Your task to perform on an android device: turn off location history Image 0: 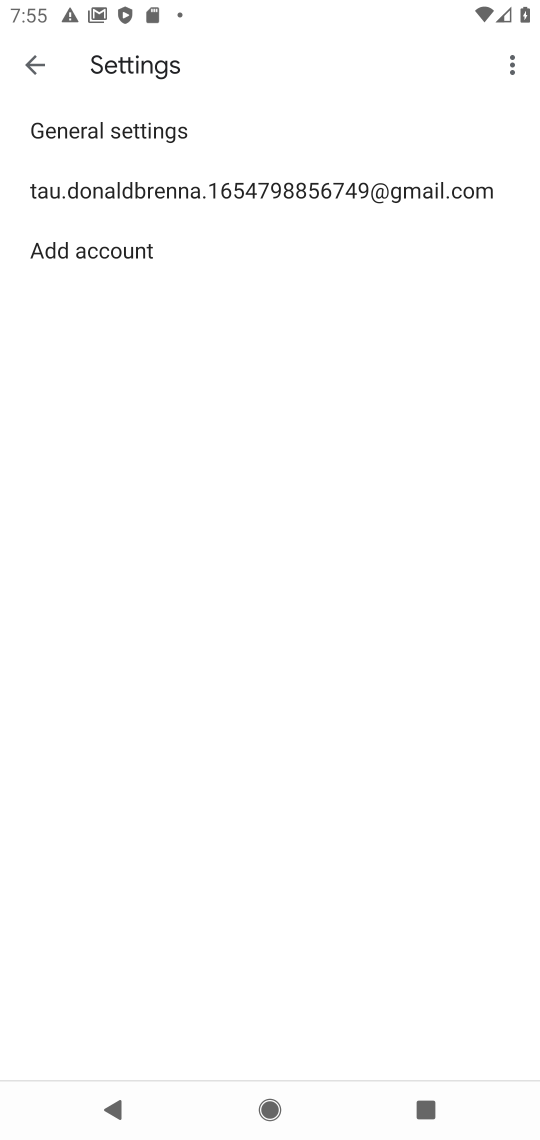
Step 0: press home button
Your task to perform on an android device: turn off location history Image 1: 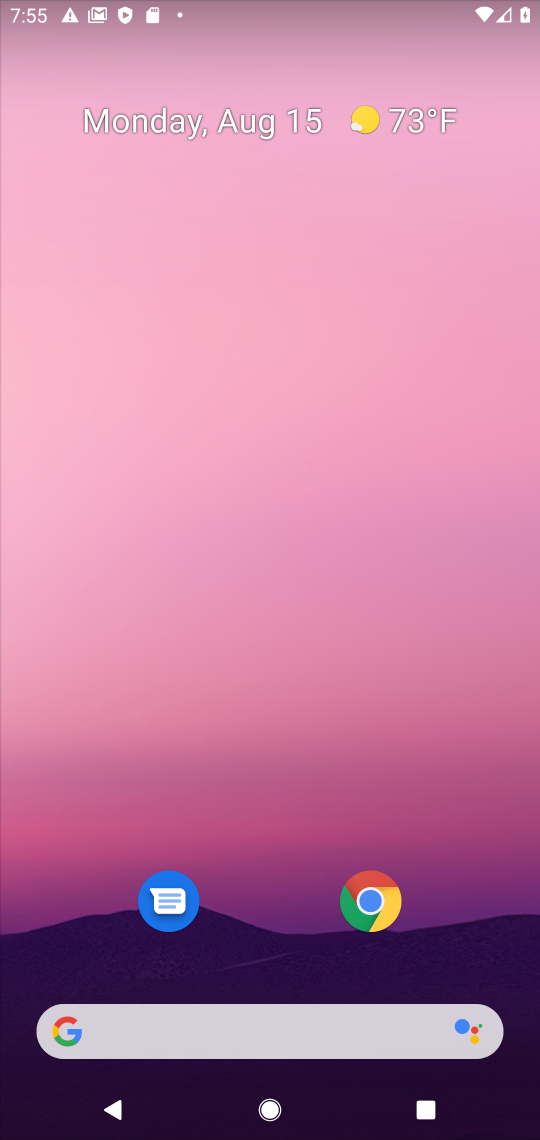
Step 1: drag from (302, 976) to (337, 16)
Your task to perform on an android device: turn off location history Image 2: 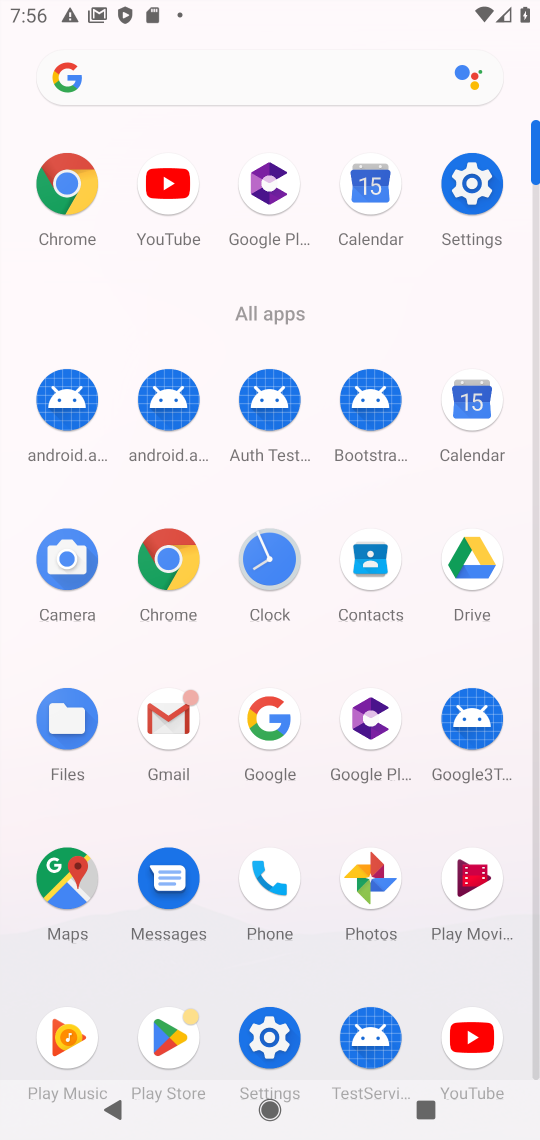
Step 2: click (263, 1016)
Your task to perform on an android device: turn off location history Image 3: 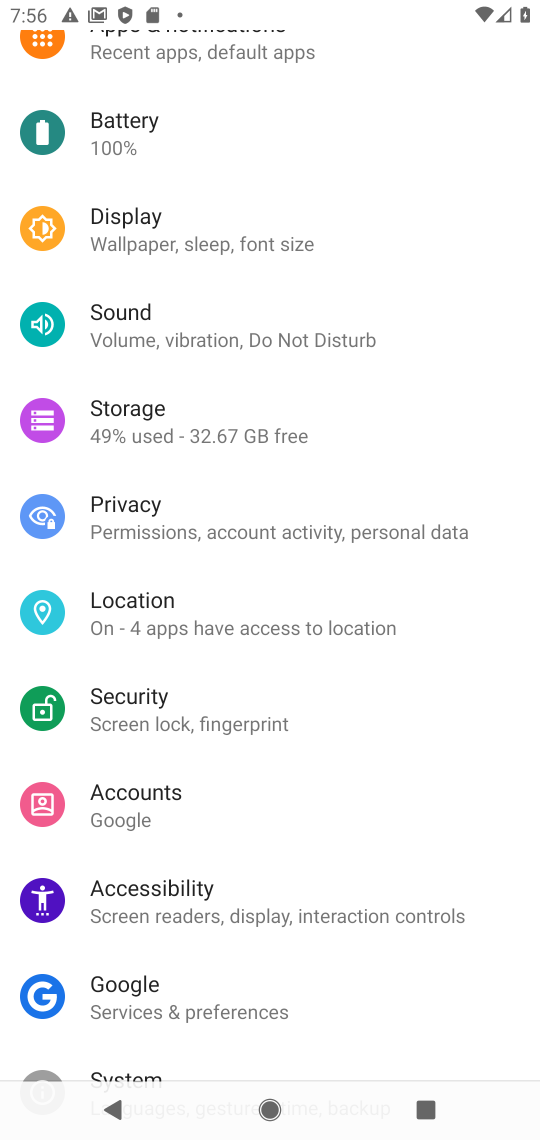
Step 3: click (165, 621)
Your task to perform on an android device: turn off location history Image 4: 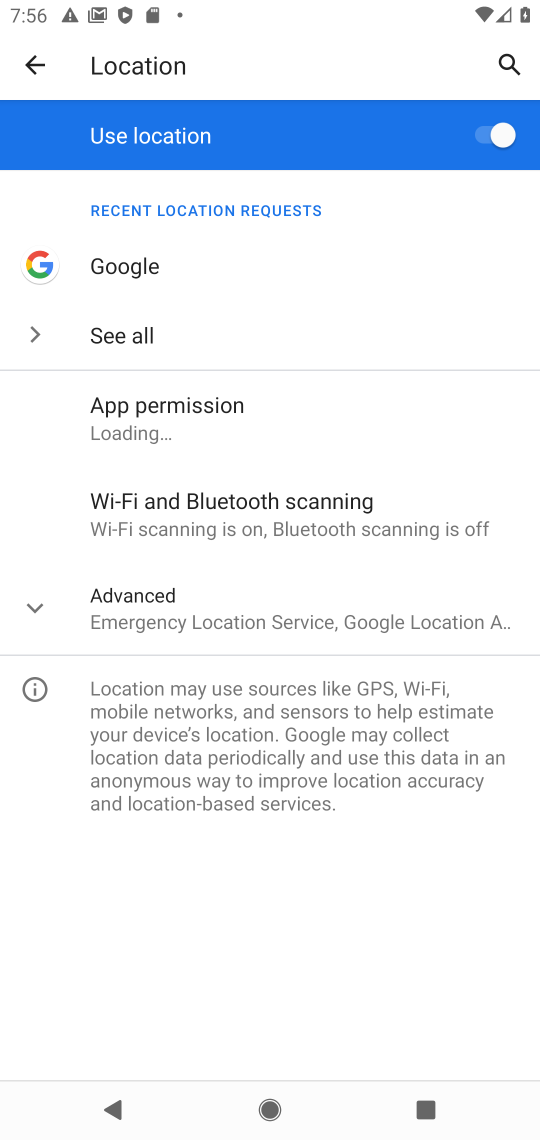
Step 4: click (186, 617)
Your task to perform on an android device: turn off location history Image 5: 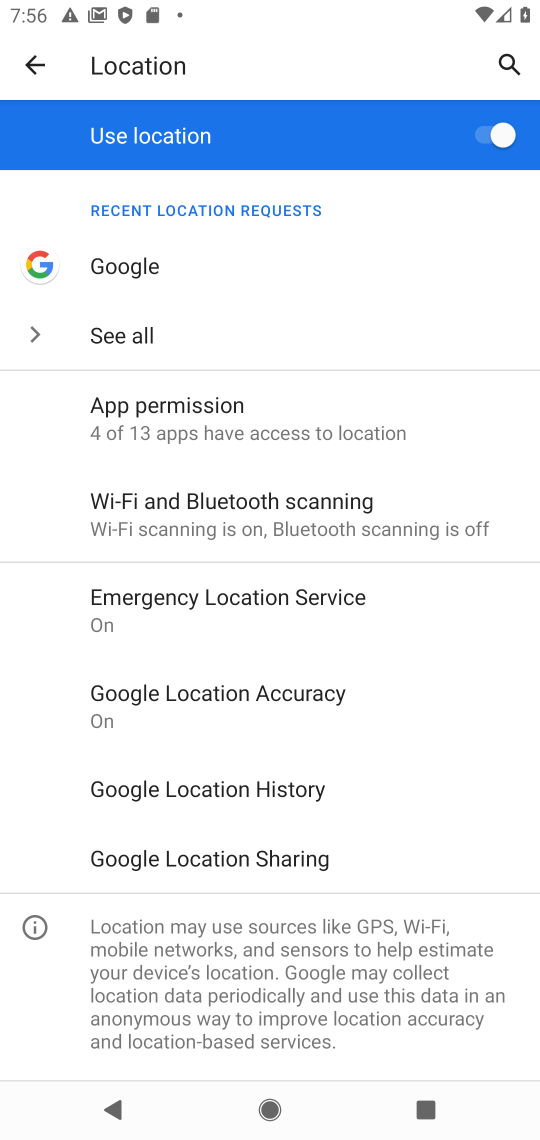
Step 5: click (263, 797)
Your task to perform on an android device: turn off location history Image 6: 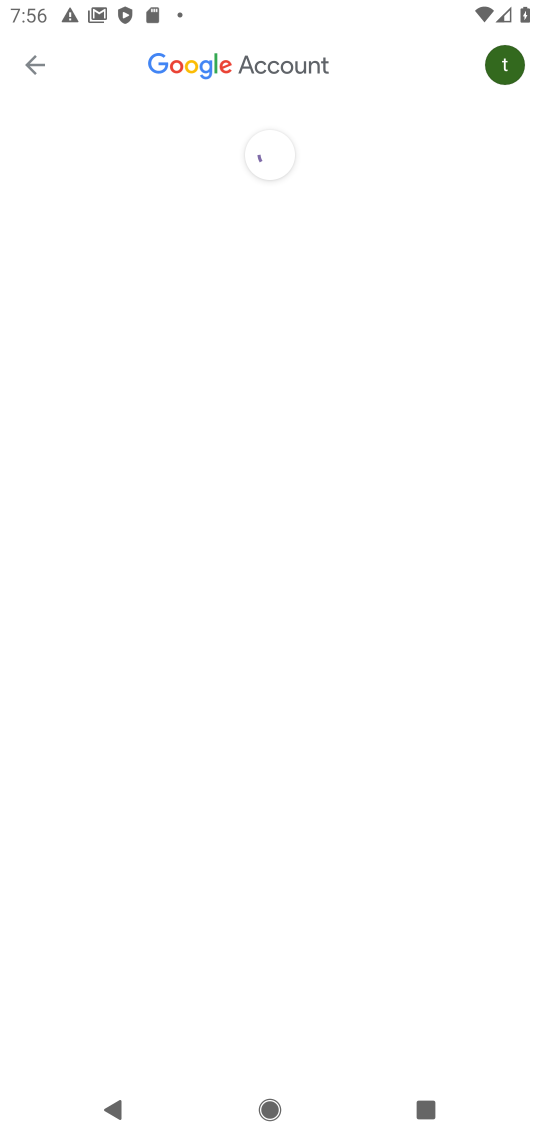
Step 6: task complete